Your task to perform on an android device: open a bookmark in the chrome app Image 0: 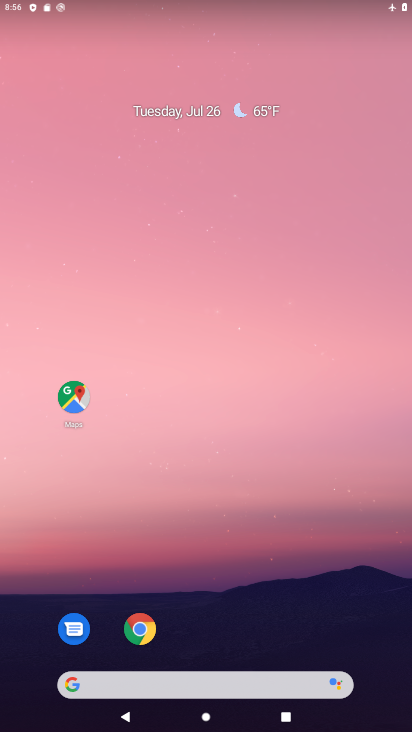
Step 0: drag from (300, 552) to (267, 89)
Your task to perform on an android device: open a bookmark in the chrome app Image 1: 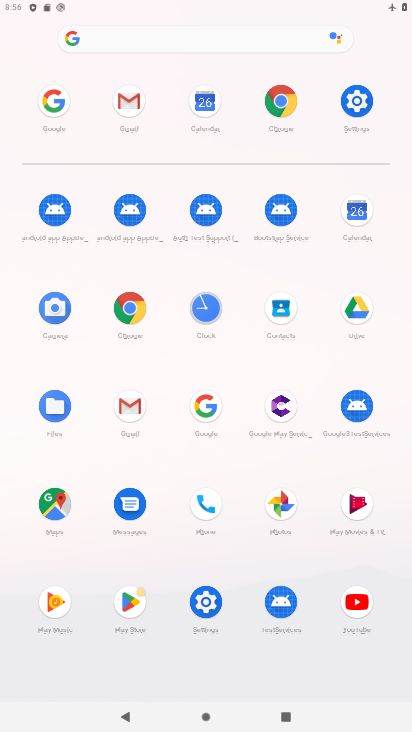
Step 1: click (279, 100)
Your task to perform on an android device: open a bookmark in the chrome app Image 2: 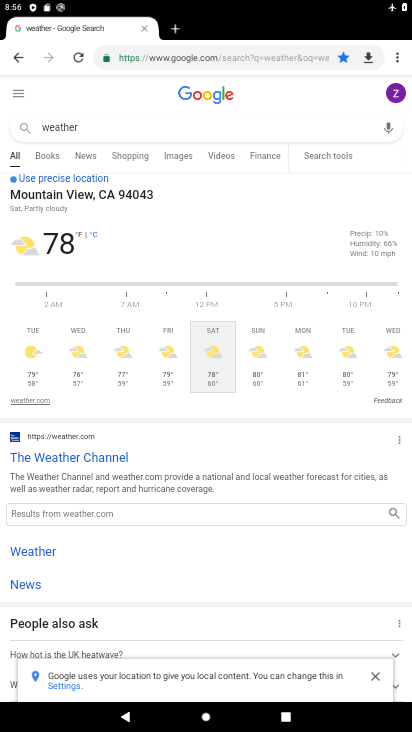
Step 2: drag from (402, 53) to (307, 113)
Your task to perform on an android device: open a bookmark in the chrome app Image 3: 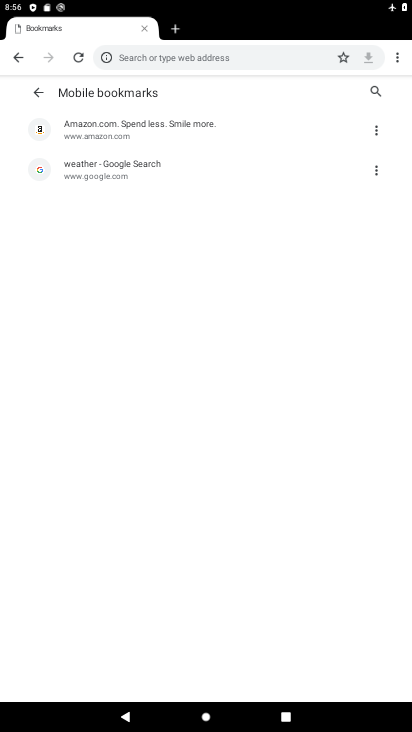
Step 3: click (82, 133)
Your task to perform on an android device: open a bookmark in the chrome app Image 4: 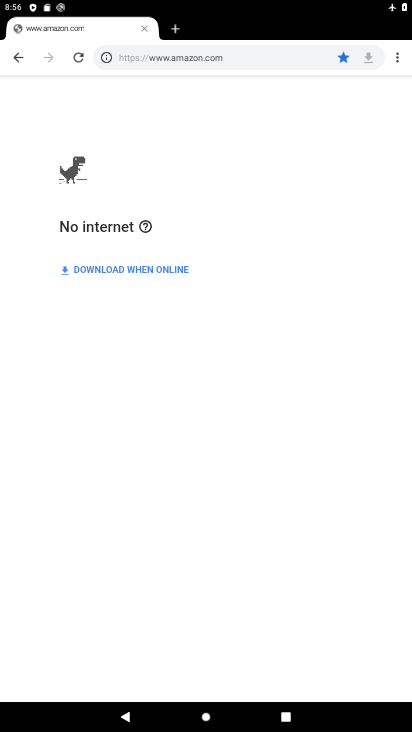
Step 4: task complete